Your task to perform on an android device: turn on priority inbox in the gmail app Image 0: 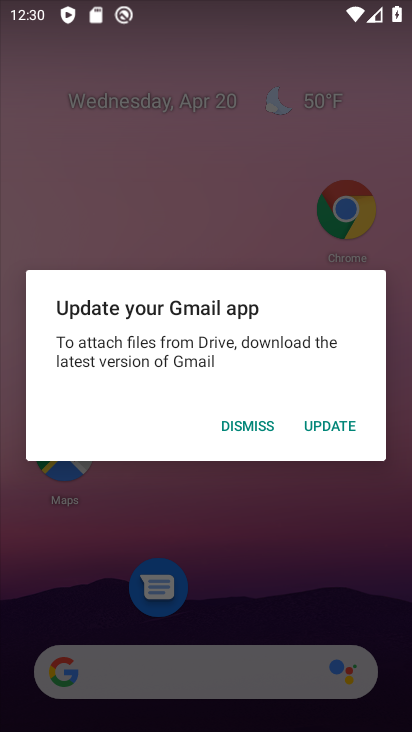
Step 0: click (255, 429)
Your task to perform on an android device: turn on priority inbox in the gmail app Image 1: 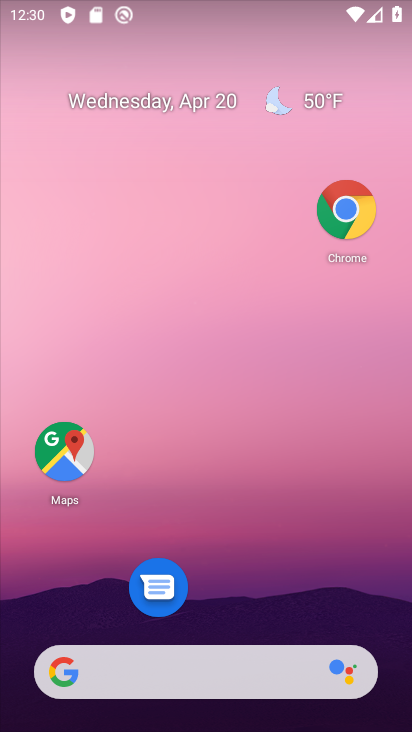
Step 1: drag from (234, 581) to (289, 142)
Your task to perform on an android device: turn on priority inbox in the gmail app Image 2: 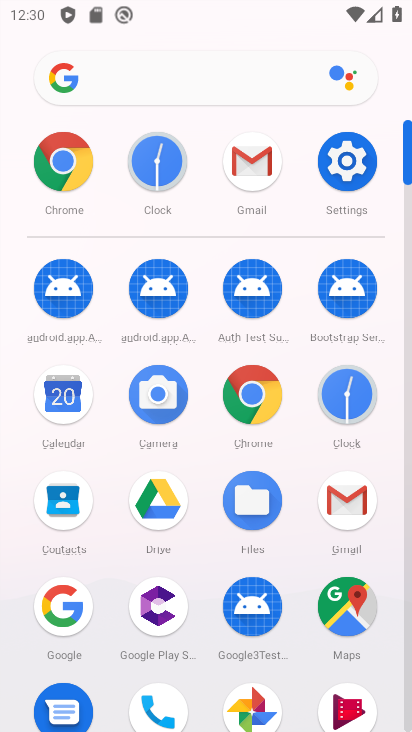
Step 2: click (259, 182)
Your task to perform on an android device: turn on priority inbox in the gmail app Image 3: 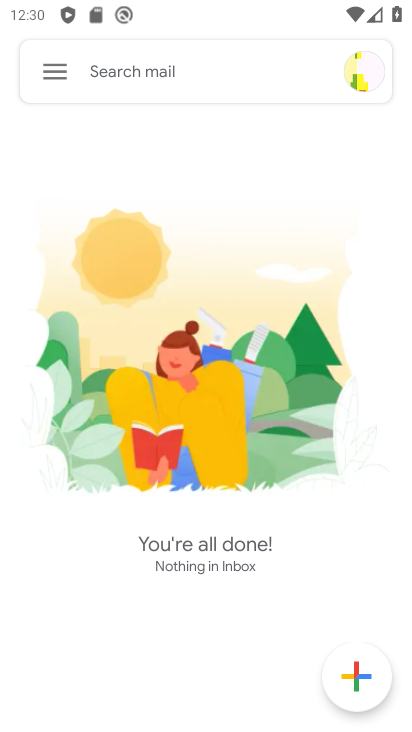
Step 3: click (51, 68)
Your task to perform on an android device: turn on priority inbox in the gmail app Image 4: 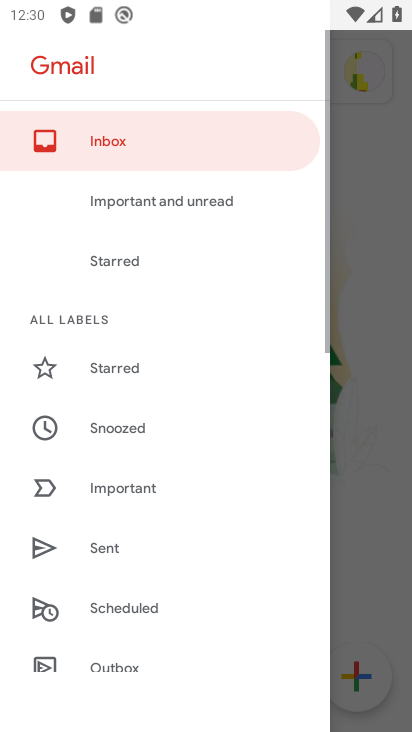
Step 4: drag from (117, 569) to (154, 216)
Your task to perform on an android device: turn on priority inbox in the gmail app Image 5: 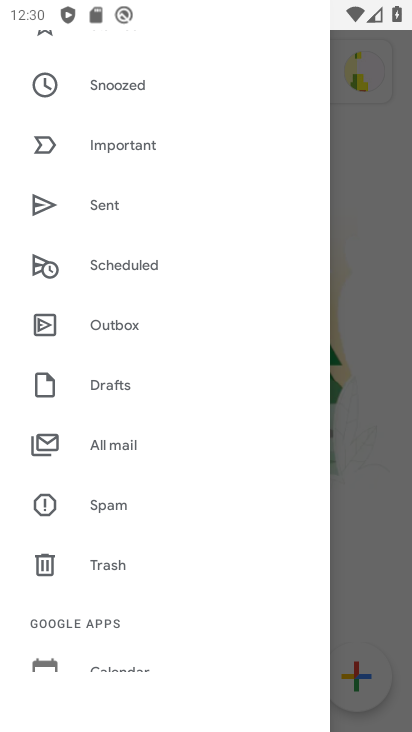
Step 5: drag from (96, 620) to (117, 356)
Your task to perform on an android device: turn on priority inbox in the gmail app Image 6: 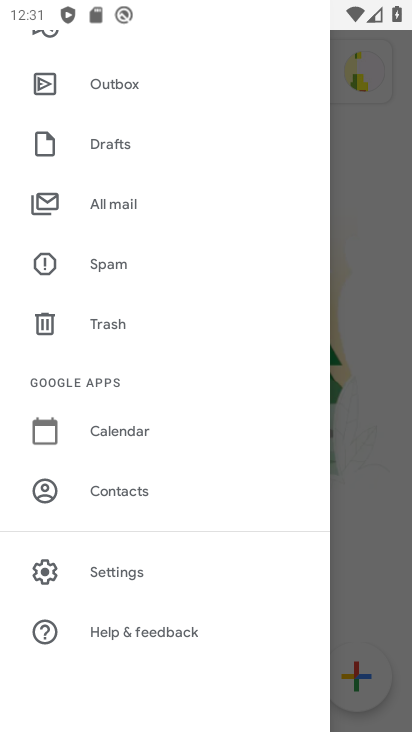
Step 6: click (107, 570)
Your task to perform on an android device: turn on priority inbox in the gmail app Image 7: 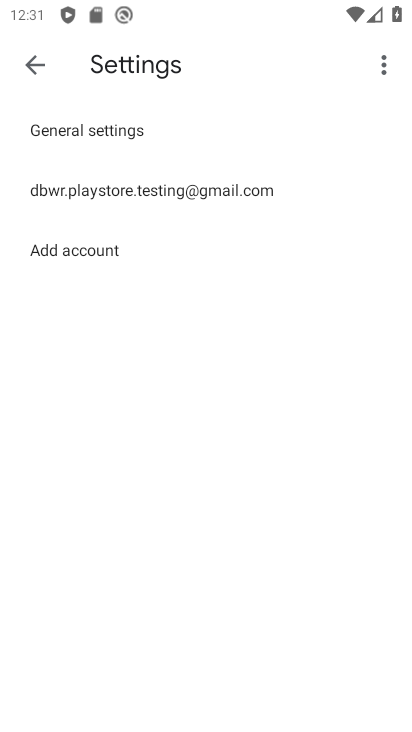
Step 7: click (120, 198)
Your task to perform on an android device: turn on priority inbox in the gmail app Image 8: 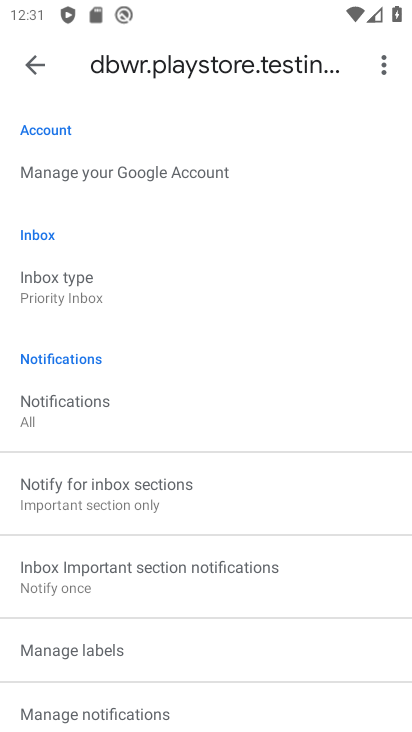
Step 8: click (85, 280)
Your task to perform on an android device: turn on priority inbox in the gmail app Image 9: 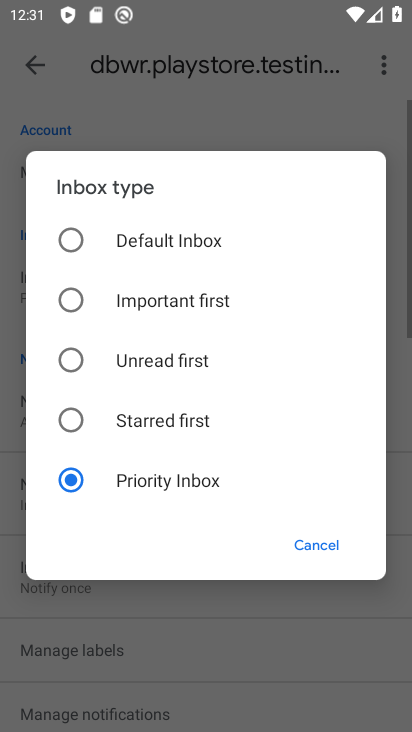
Step 9: task complete